Your task to perform on an android device: open sync settings in chrome Image 0: 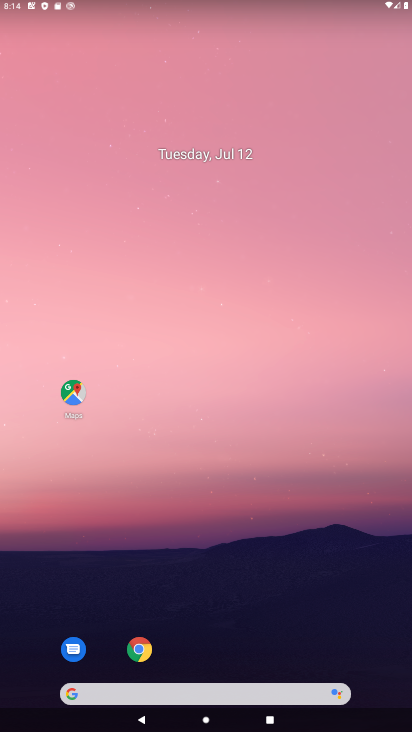
Step 0: click (139, 650)
Your task to perform on an android device: open sync settings in chrome Image 1: 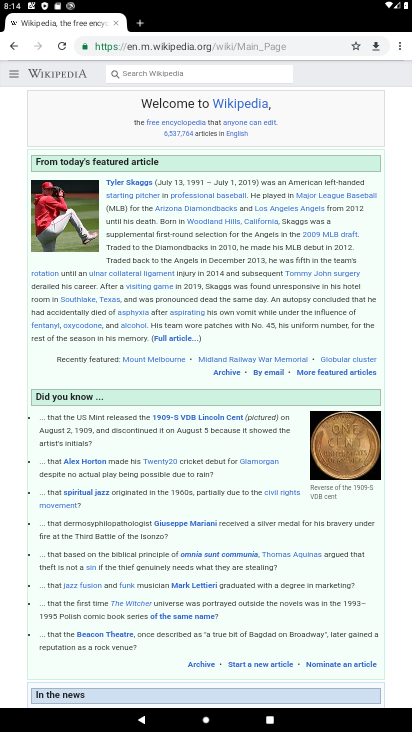
Step 1: click (397, 44)
Your task to perform on an android device: open sync settings in chrome Image 2: 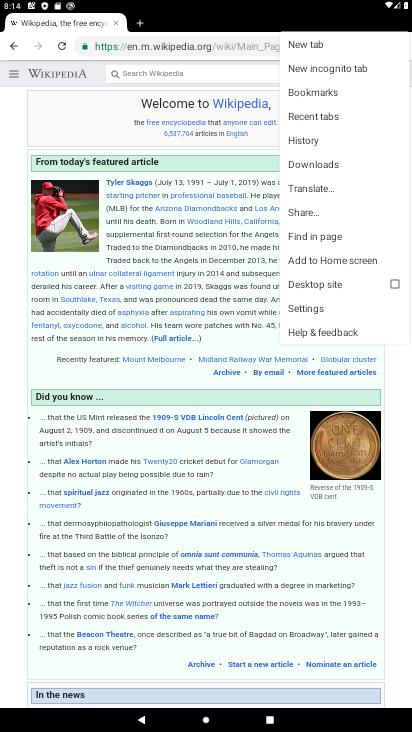
Step 2: click (317, 306)
Your task to perform on an android device: open sync settings in chrome Image 3: 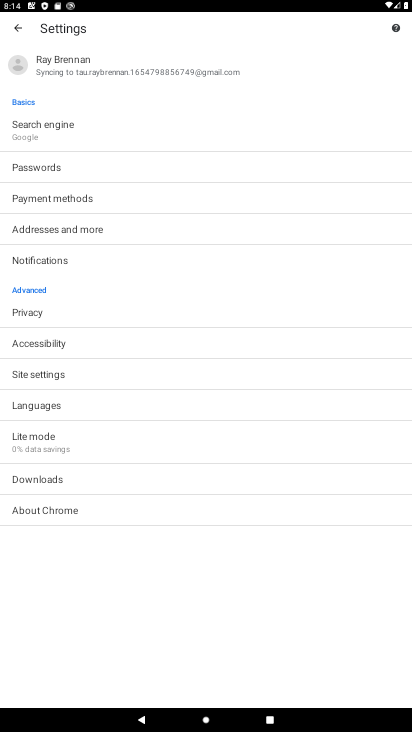
Step 3: click (68, 373)
Your task to perform on an android device: open sync settings in chrome Image 4: 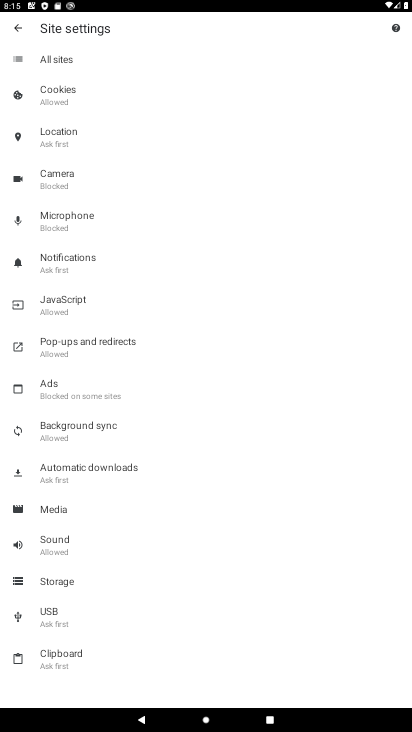
Step 4: click (95, 428)
Your task to perform on an android device: open sync settings in chrome Image 5: 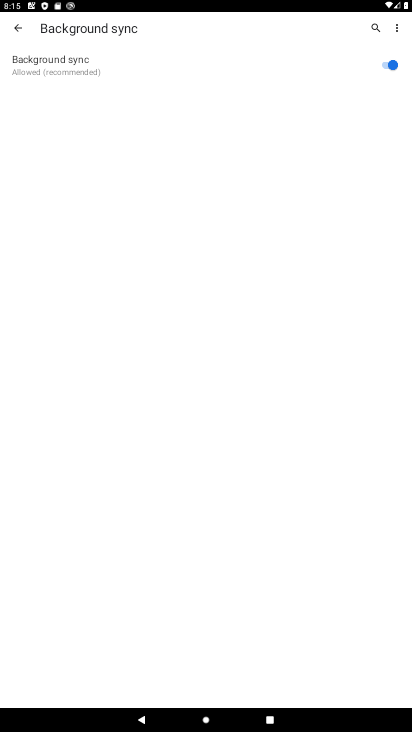
Step 5: task complete